Your task to perform on an android device: Open Yahoo.com Image 0: 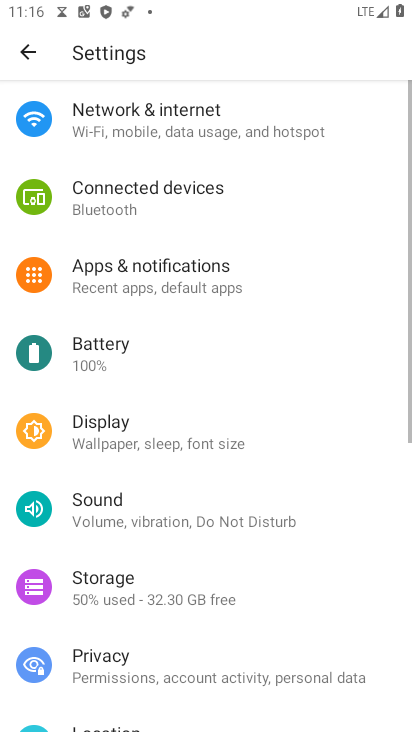
Step 0: press back button
Your task to perform on an android device: Open Yahoo.com Image 1: 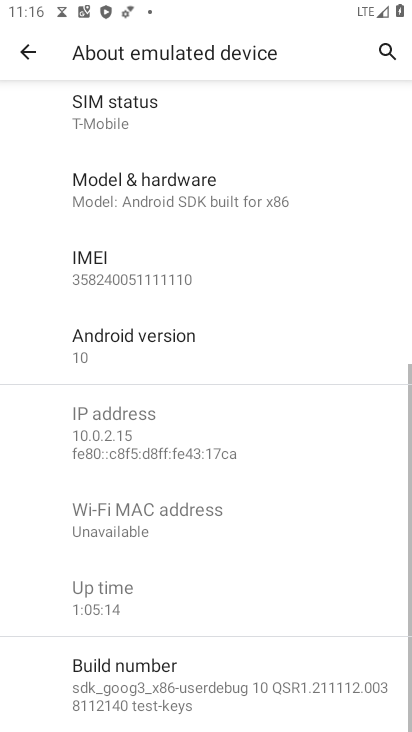
Step 1: press back button
Your task to perform on an android device: Open Yahoo.com Image 2: 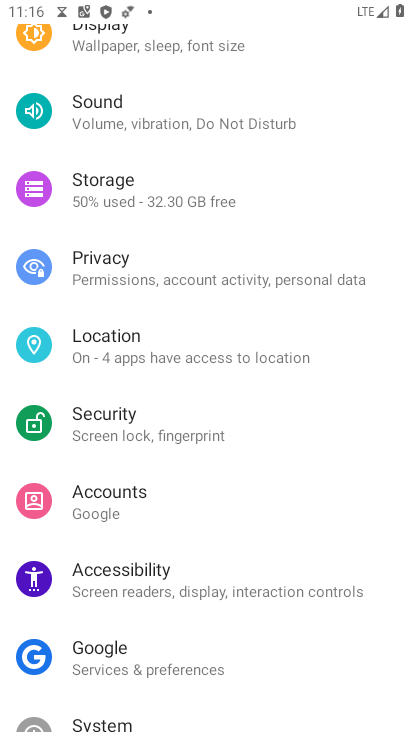
Step 2: press back button
Your task to perform on an android device: Open Yahoo.com Image 3: 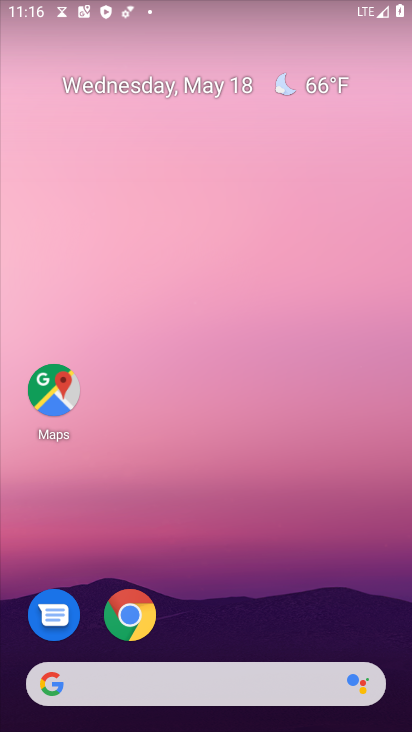
Step 3: drag from (298, 563) to (264, 32)
Your task to perform on an android device: Open Yahoo.com Image 4: 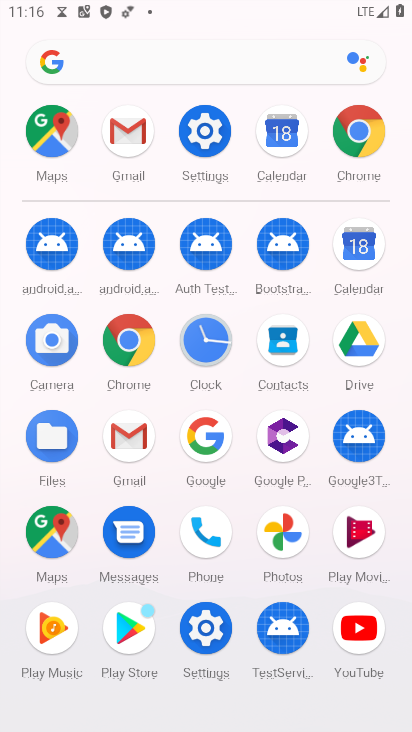
Step 4: click (129, 337)
Your task to perform on an android device: Open Yahoo.com Image 5: 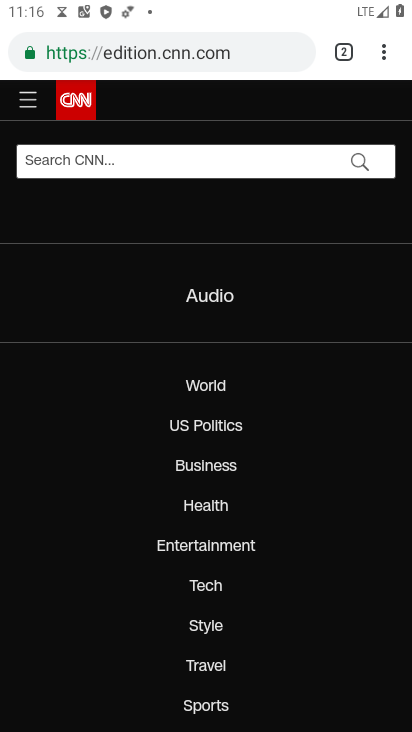
Step 5: click (189, 56)
Your task to perform on an android device: Open Yahoo.com Image 6: 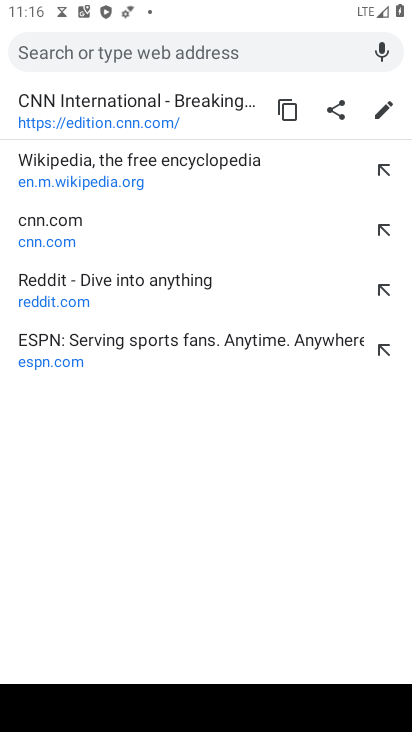
Step 6: type "Yahoo.com"
Your task to perform on an android device: Open Yahoo.com Image 7: 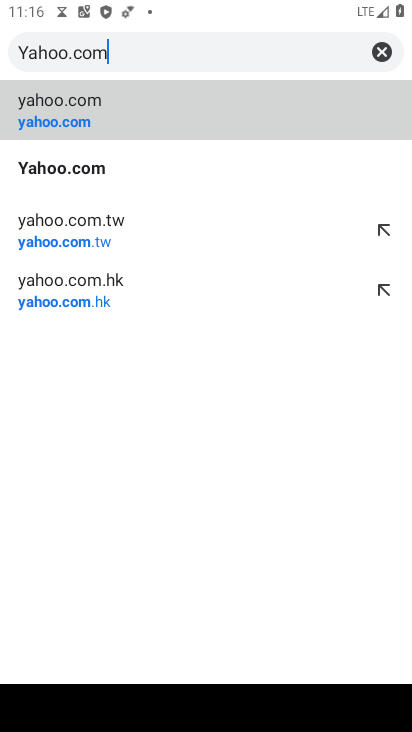
Step 7: type ""
Your task to perform on an android device: Open Yahoo.com Image 8: 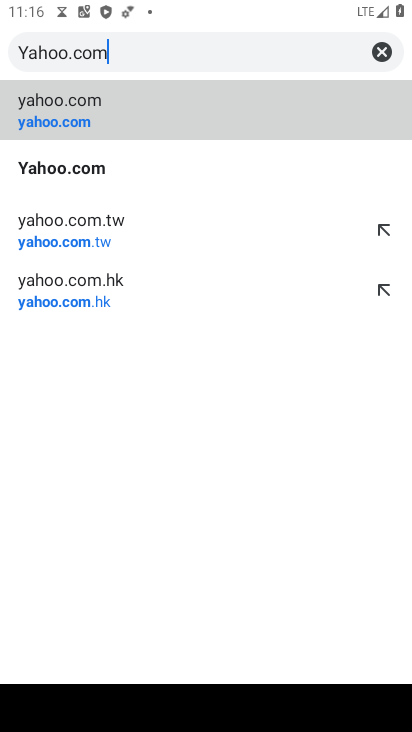
Step 8: click (119, 120)
Your task to perform on an android device: Open Yahoo.com Image 9: 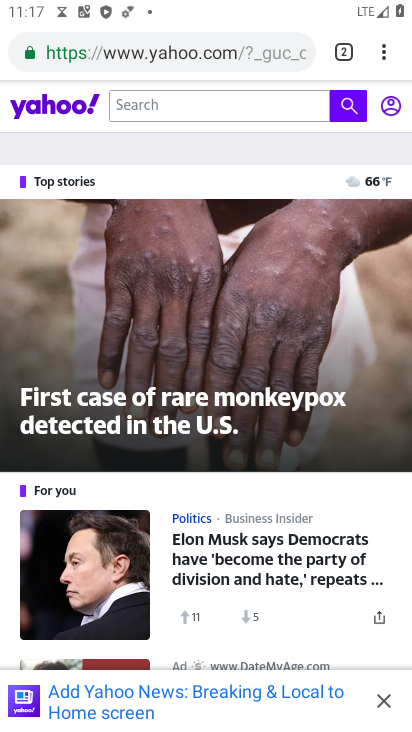
Step 9: task complete